Your task to perform on an android device: add a contact in the contacts app Image 0: 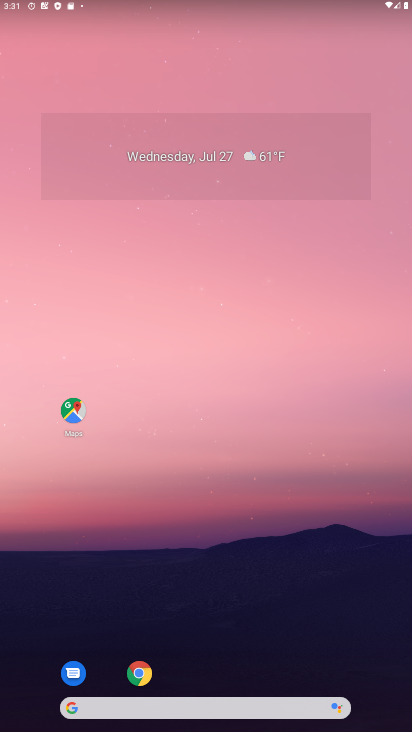
Step 0: drag from (48, 637) to (222, 285)
Your task to perform on an android device: add a contact in the contacts app Image 1: 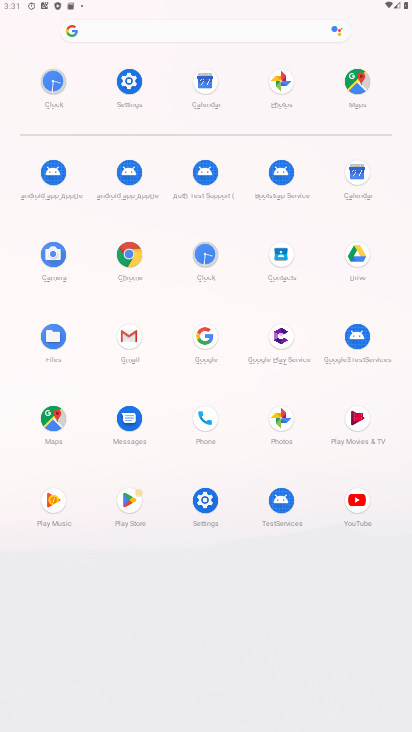
Step 1: click (208, 422)
Your task to perform on an android device: add a contact in the contacts app Image 2: 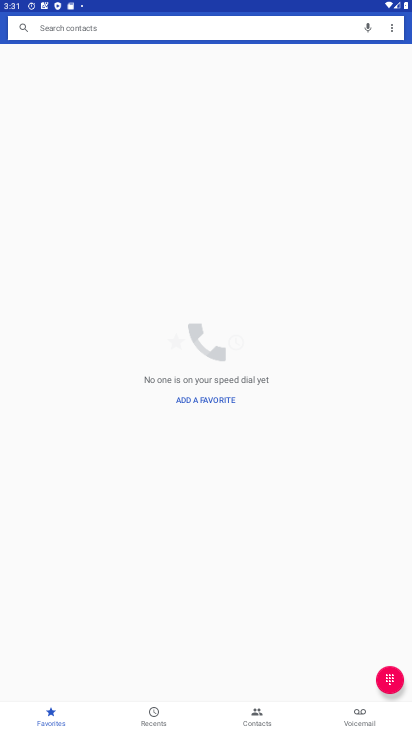
Step 2: click (263, 714)
Your task to perform on an android device: add a contact in the contacts app Image 3: 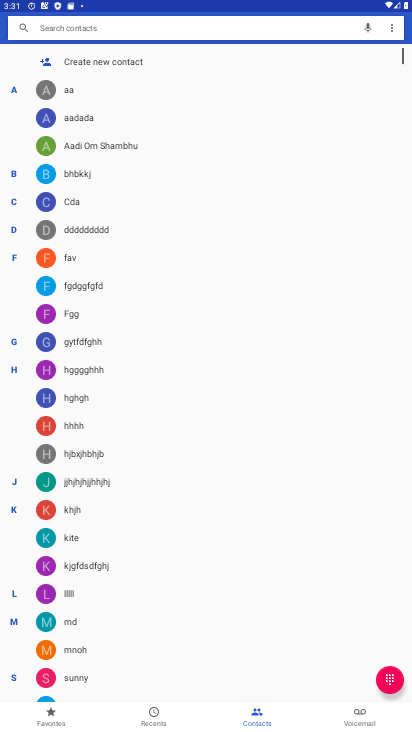
Step 3: click (60, 64)
Your task to perform on an android device: add a contact in the contacts app Image 4: 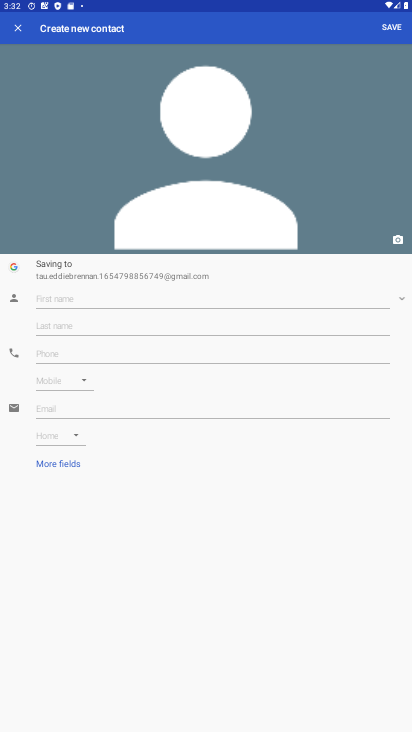
Step 4: click (94, 281)
Your task to perform on an android device: add a contact in the contacts app Image 5: 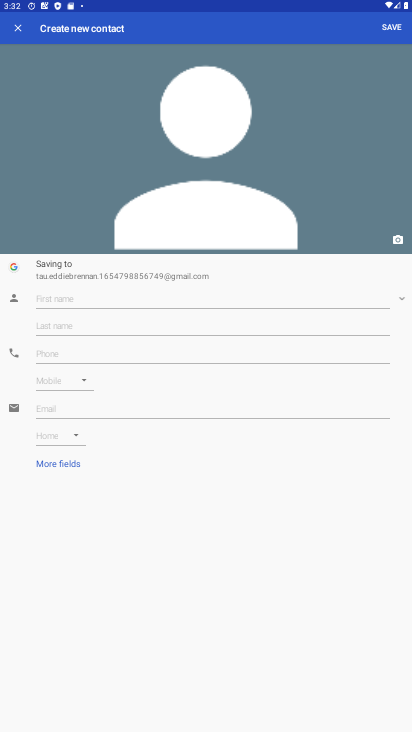
Step 5: click (89, 295)
Your task to perform on an android device: add a contact in the contacts app Image 6: 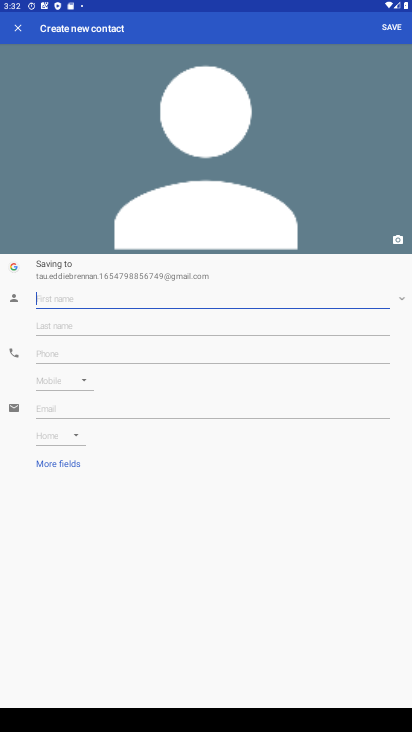
Step 6: type "qweegergf"
Your task to perform on an android device: add a contact in the contacts app Image 7: 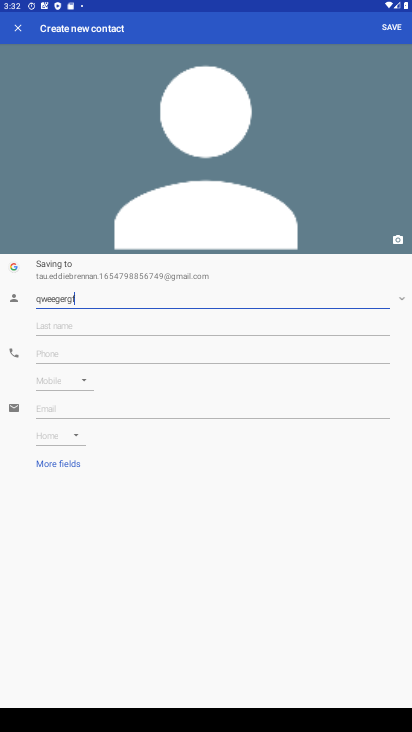
Step 7: type ""
Your task to perform on an android device: add a contact in the contacts app Image 8: 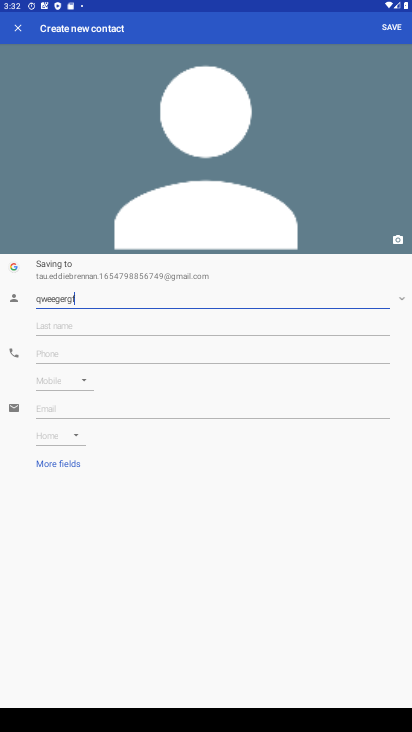
Step 8: click (385, 29)
Your task to perform on an android device: add a contact in the contacts app Image 9: 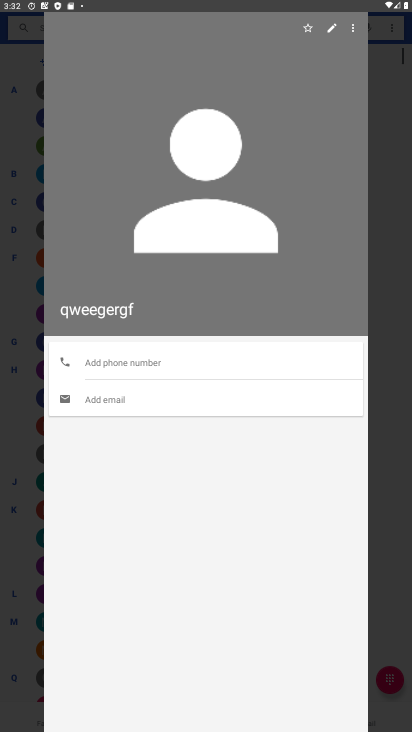
Step 9: task complete